Your task to perform on an android device: Open calendar and show me the fourth week of next month Image 0: 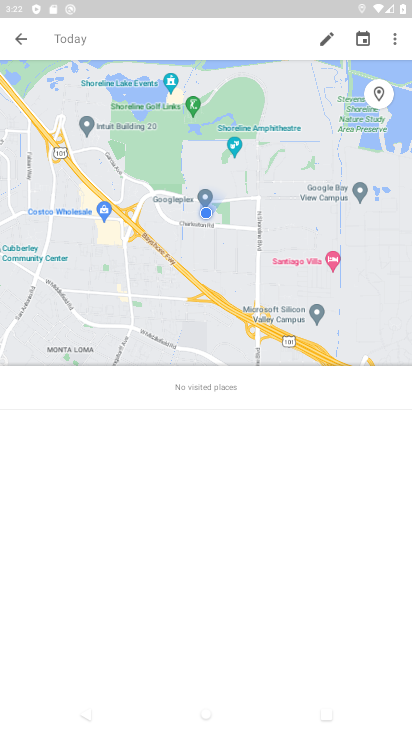
Step 0: press home button
Your task to perform on an android device: Open calendar and show me the fourth week of next month Image 1: 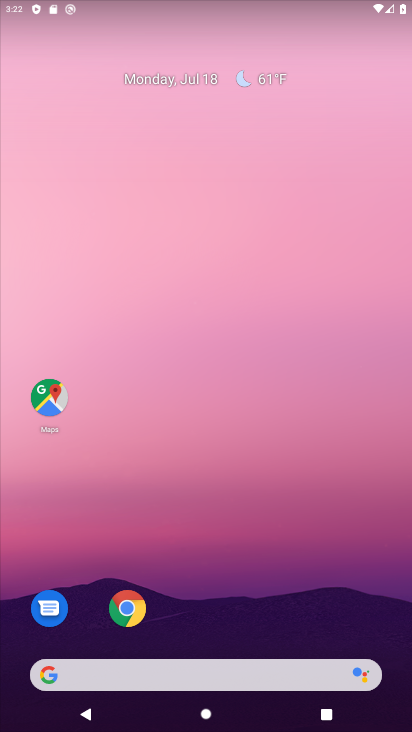
Step 1: drag from (218, 196) to (204, 104)
Your task to perform on an android device: Open calendar and show me the fourth week of next month Image 2: 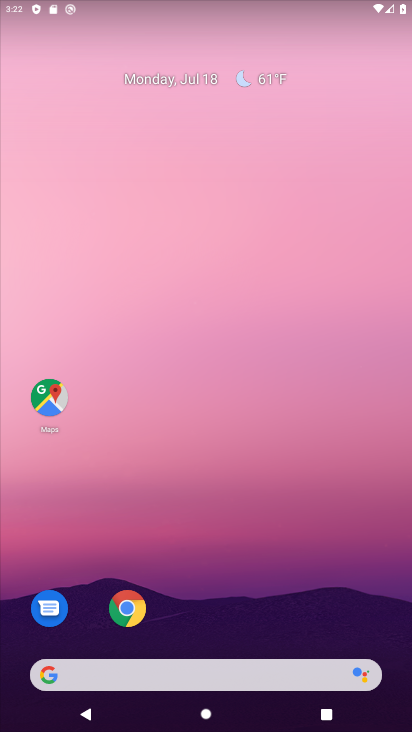
Step 2: drag from (271, 539) to (251, 69)
Your task to perform on an android device: Open calendar and show me the fourth week of next month Image 3: 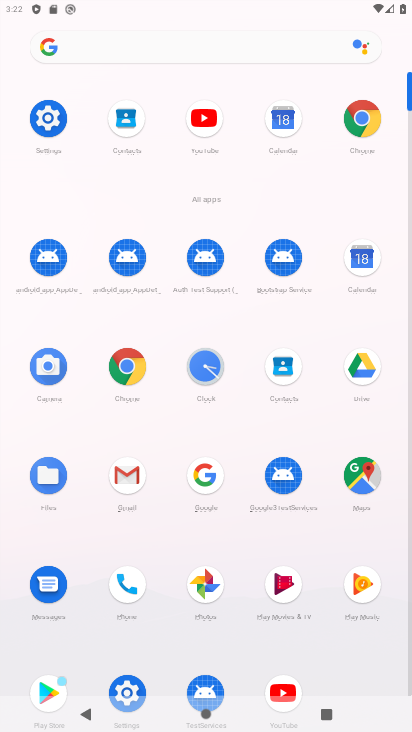
Step 3: click (376, 255)
Your task to perform on an android device: Open calendar and show me the fourth week of next month Image 4: 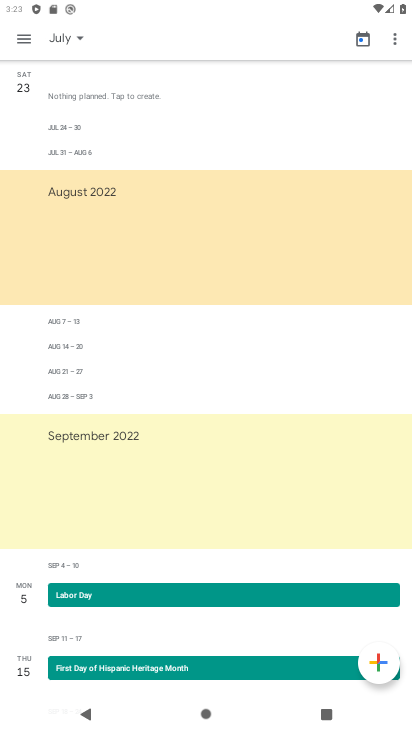
Step 4: click (72, 34)
Your task to perform on an android device: Open calendar and show me the fourth week of next month Image 5: 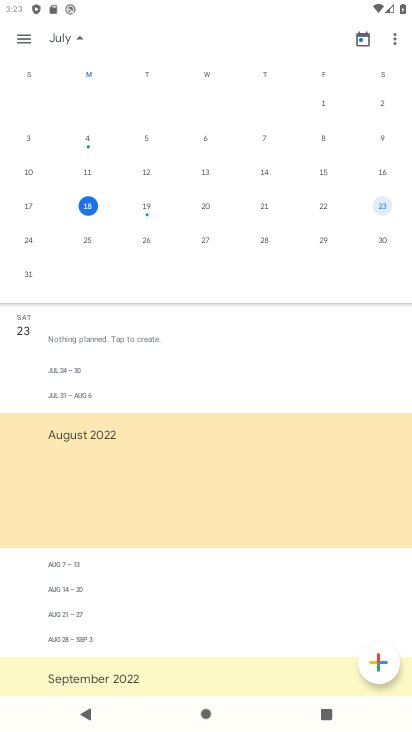
Step 5: drag from (383, 186) to (15, 201)
Your task to perform on an android device: Open calendar and show me the fourth week of next month Image 6: 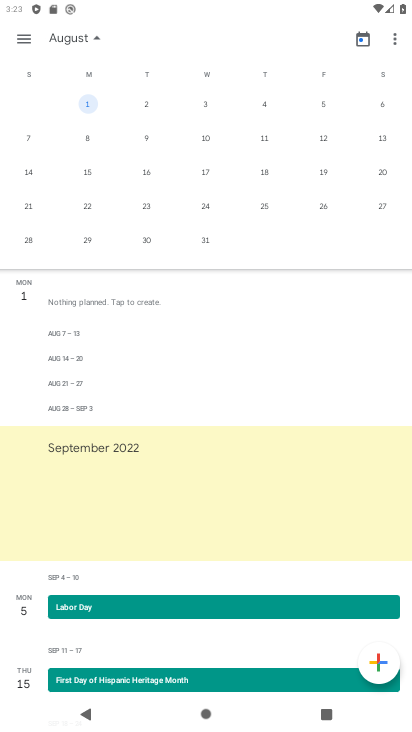
Step 6: click (270, 206)
Your task to perform on an android device: Open calendar and show me the fourth week of next month Image 7: 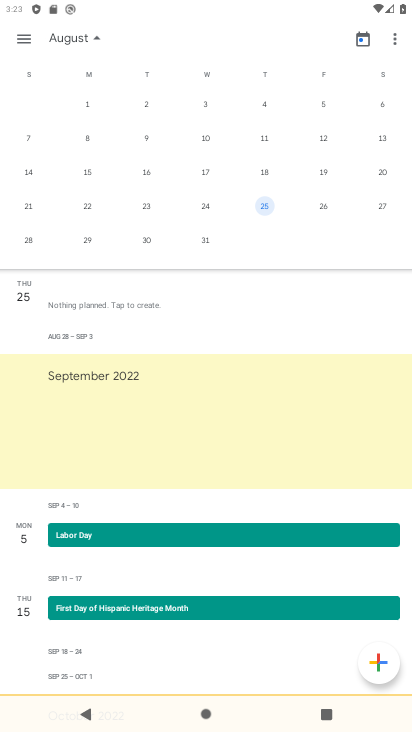
Step 7: click (23, 40)
Your task to perform on an android device: Open calendar and show me the fourth week of next month Image 8: 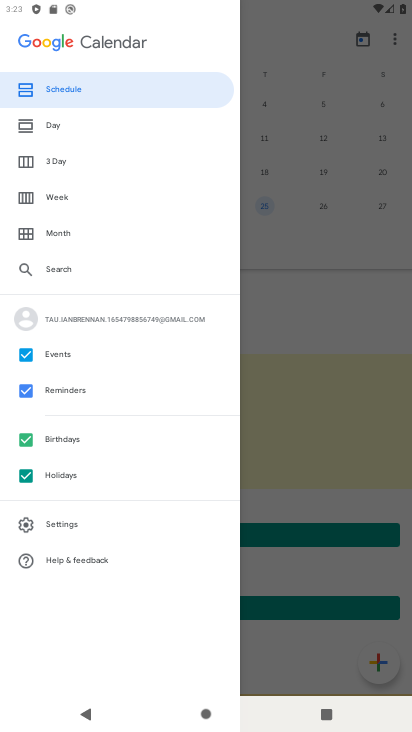
Step 8: click (70, 193)
Your task to perform on an android device: Open calendar and show me the fourth week of next month Image 9: 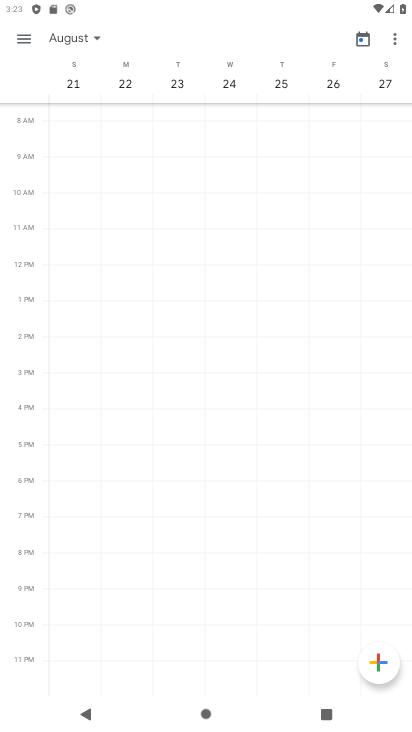
Step 9: task complete